Your task to perform on an android device: turn on priority inbox in the gmail app Image 0: 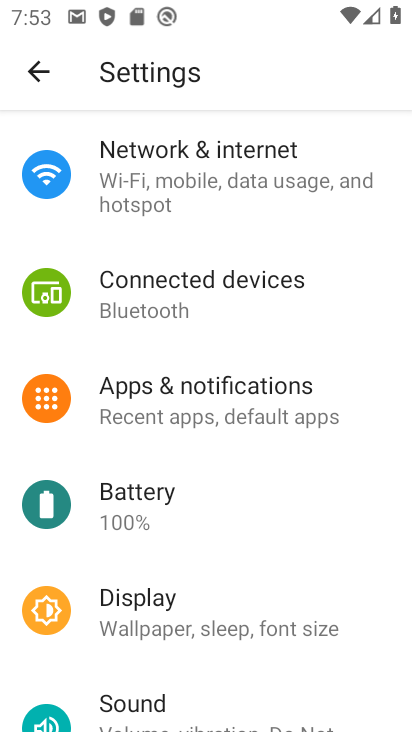
Step 0: press home button
Your task to perform on an android device: turn on priority inbox in the gmail app Image 1: 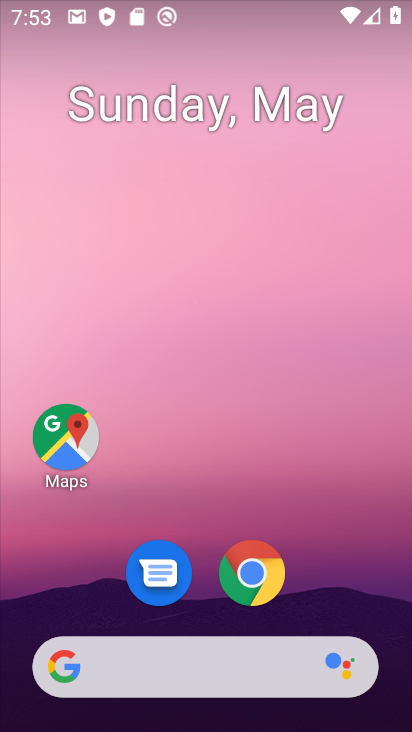
Step 1: drag from (216, 486) to (170, 19)
Your task to perform on an android device: turn on priority inbox in the gmail app Image 2: 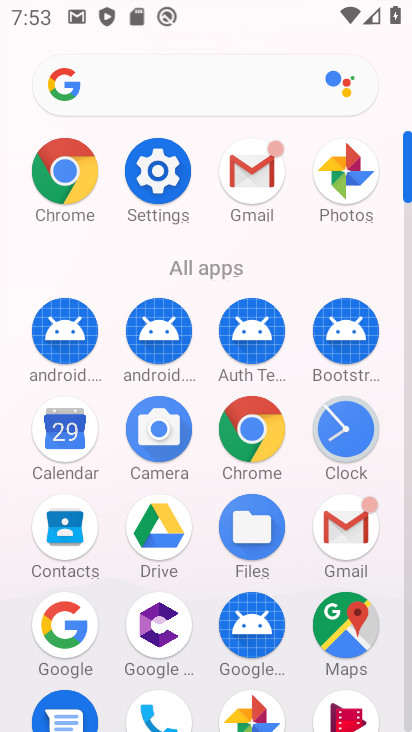
Step 2: click (244, 176)
Your task to perform on an android device: turn on priority inbox in the gmail app Image 3: 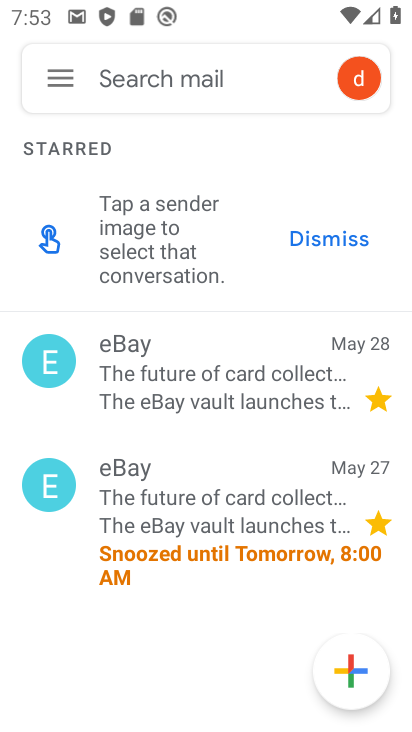
Step 3: click (60, 73)
Your task to perform on an android device: turn on priority inbox in the gmail app Image 4: 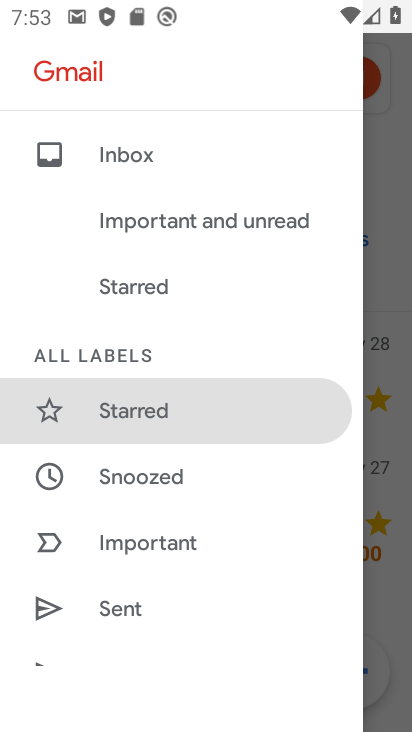
Step 4: drag from (203, 563) to (261, 7)
Your task to perform on an android device: turn on priority inbox in the gmail app Image 5: 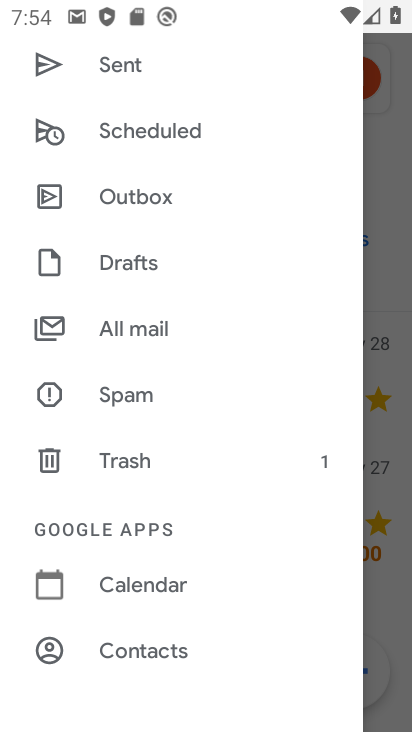
Step 5: drag from (228, 608) to (248, 196)
Your task to perform on an android device: turn on priority inbox in the gmail app Image 6: 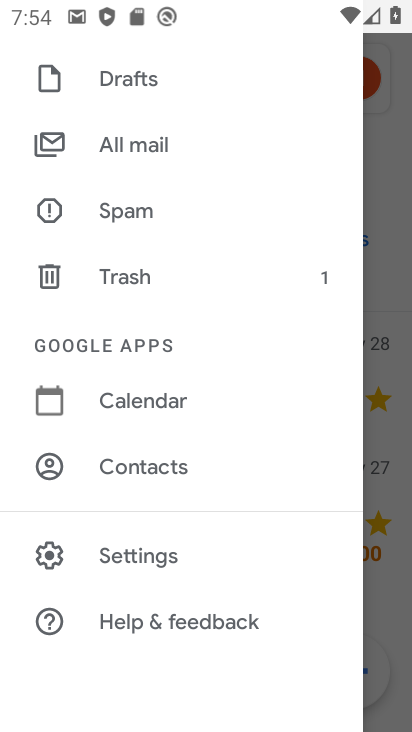
Step 6: click (165, 549)
Your task to perform on an android device: turn on priority inbox in the gmail app Image 7: 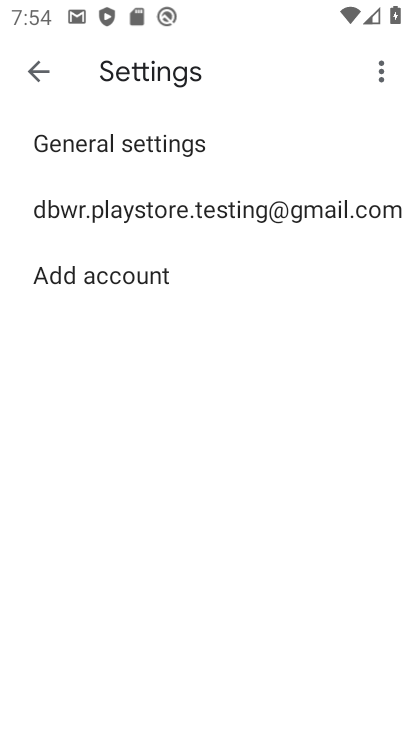
Step 7: click (271, 193)
Your task to perform on an android device: turn on priority inbox in the gmail app Image 8: 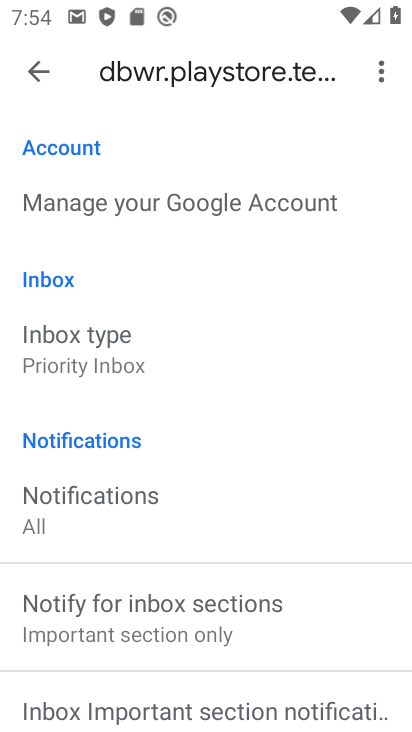
Step 8: task complete